Your task to perform on an android device: Search for "alienware aurora" on walmart.com, select the first entry, and add it to the cart. Image 0: 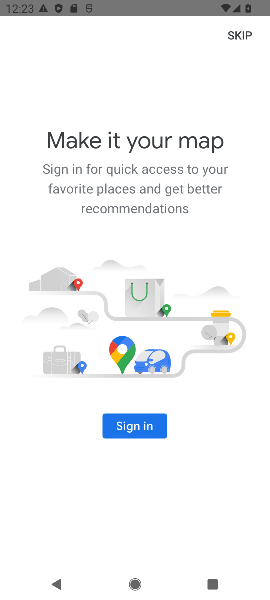
Step 0: press home button
Your task to perform on an android device: Search for "alienware aurora" on walmart.com, select the first entry, and add it to the cart. Image 1: 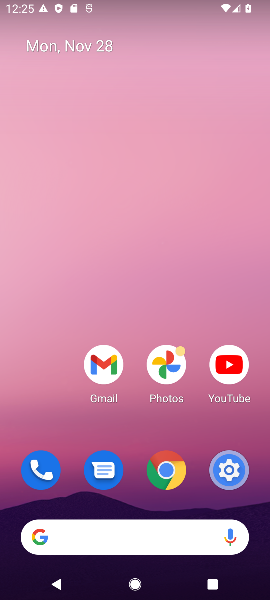
Step 1: click (129, 550)
Your task to perform on an android device: Search for "alienware aurora" on walmart.com, select the first entry, and add it to the cart. Image 2: 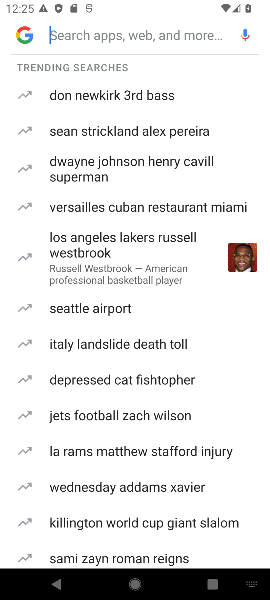
Step 2: type "walmart"
Your task to perform on an android device: Search for "alienware aurora" on walmart.com, select the first entry, and add it to the cart. Image 3: 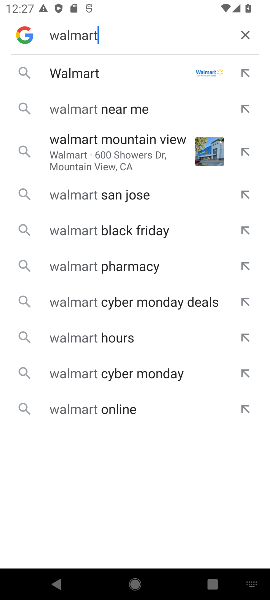
Step 3: task complete